Your task to perform on an android device: Check the news Image 0: 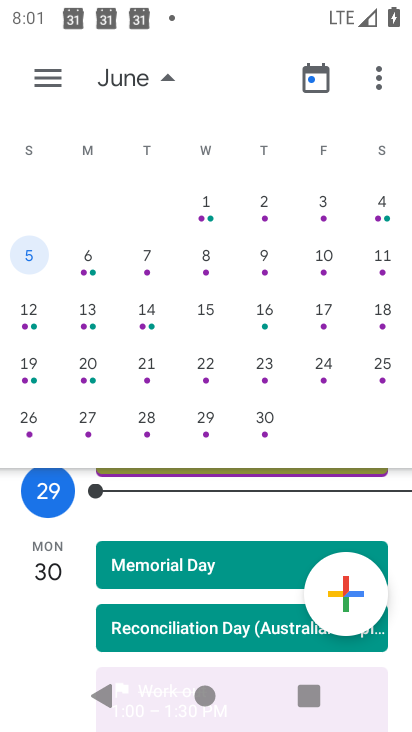
Step 0: press home button
Your task to perform on an android device: Check the news Image 1: 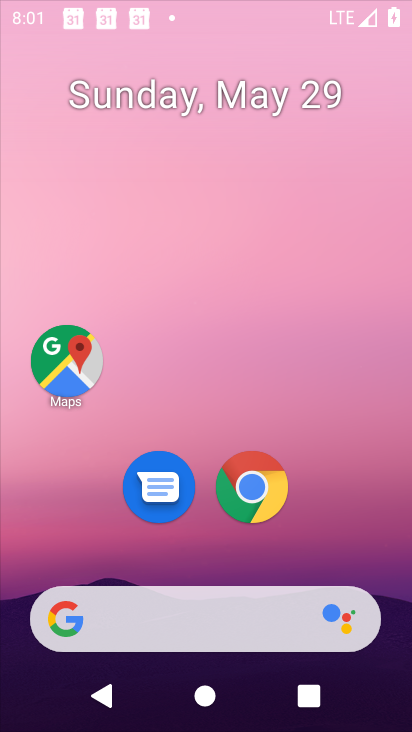
Step 1: drag from (207, 597) to (241, 98)
Your task to perform on an android device: Check the news Image 2: 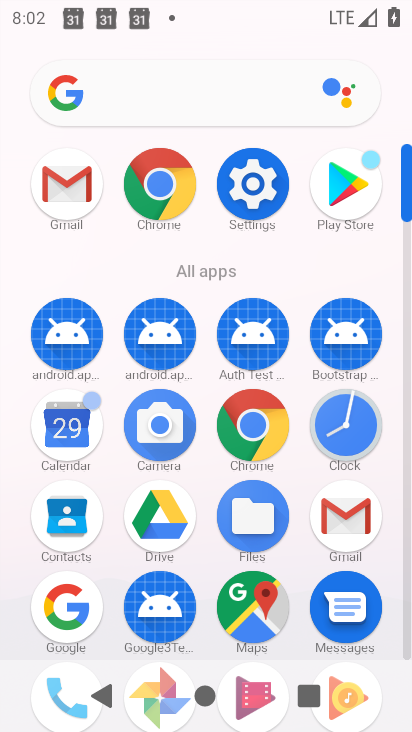
Step 2: click (265, 212)
Your task to perform on an android device: Check the news Image 3: 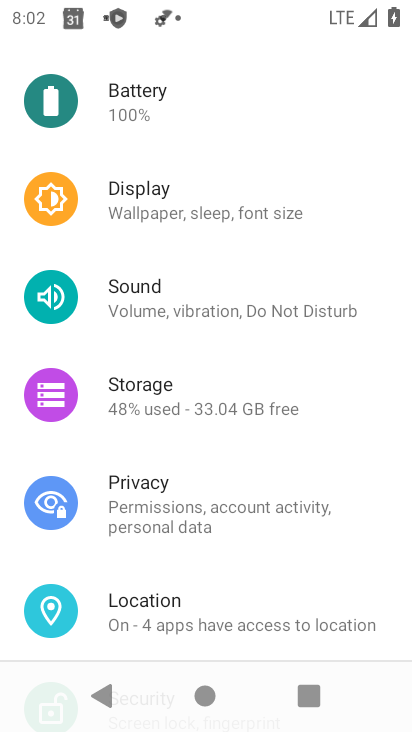
Step 3: press home button
Your task to perform on an android device: Check the news Image 4: 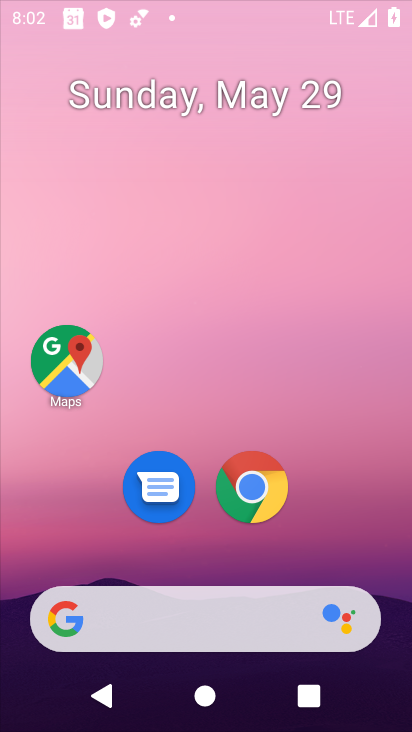
Step 4: drag from (187, 575) to (291, 131)
Your task to perform on an android device: Check the news Image 5: 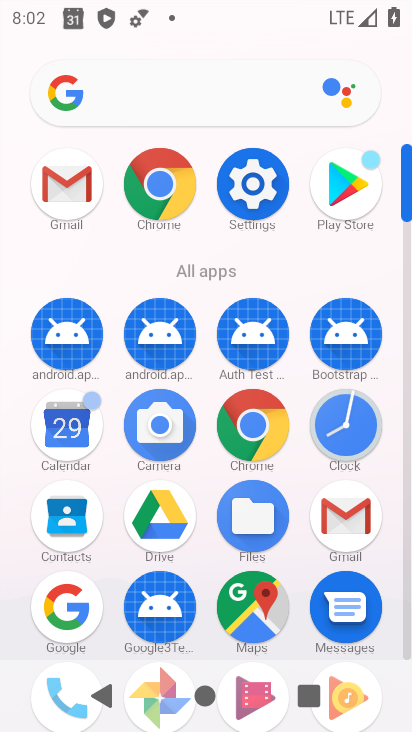
Step 5: click (75, 607)
Your task to perform on an android device: Check the news Image 6: 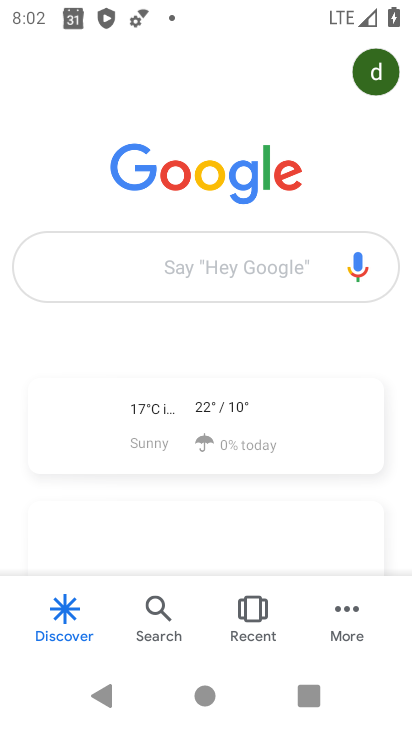
Step 6: click (171, 268)
Your task to perform on an android device: Check the news Image 7: 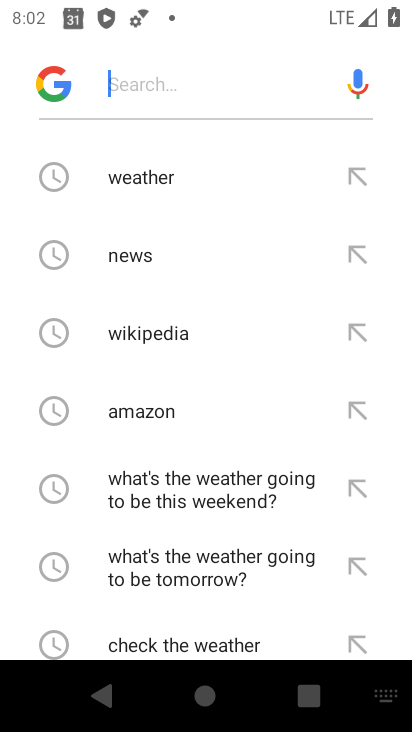
Step 7: click (233, 254)
Your task to perform on an android device: Check the news Image 8: 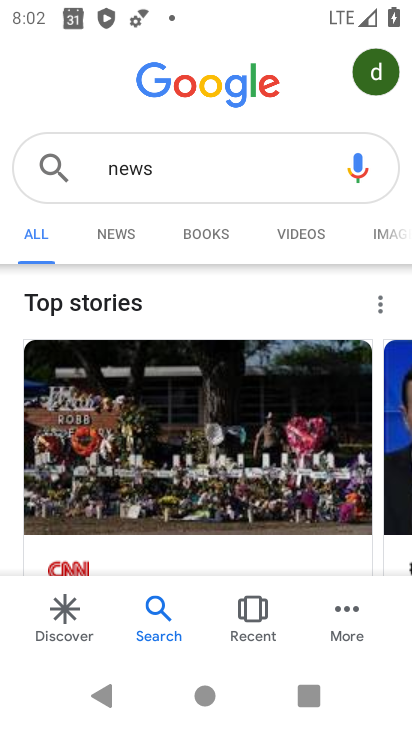
Step 8: click (112, 235)
Your task to perform on an android device: Check the news Image 9: 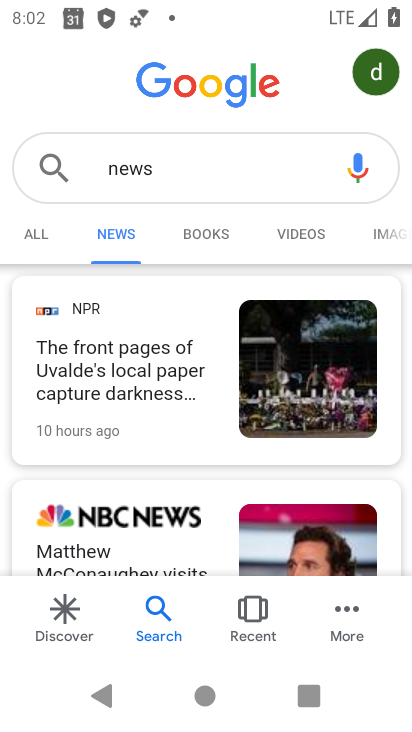
Step 9: task complete